Your task to perform on an android device: Do I have any events today? Image 0: 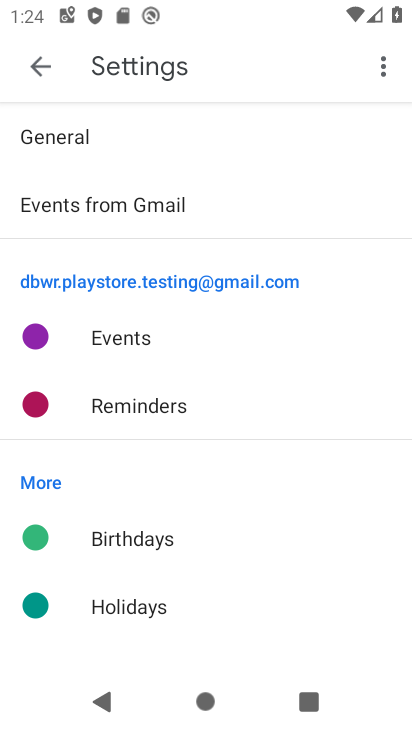
Step 0: press home button
Your task to perform on an android device: Do I have any events today? Image 1: 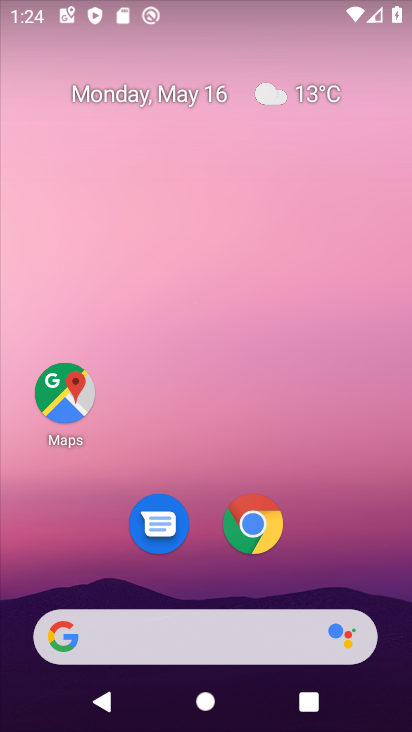
Step 1: drag from (321, 548) to (301, 50)
Your task to perform on an android device: Do I have any events today? Image 2: 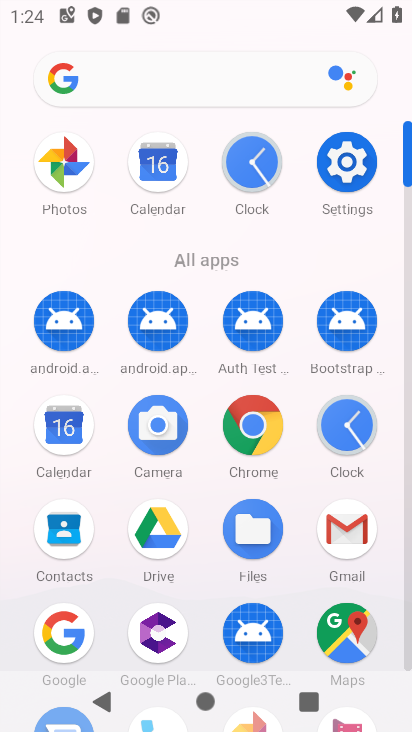
Step 2: click (169, 173)
Your task to perform on an android device: Do I have any events today? Image 3: 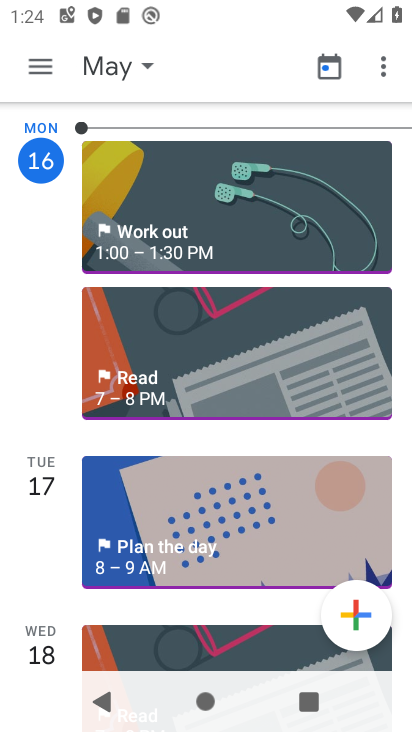
Step 3: task complete